Your task to perform on an android device: Go to settings Image 0: 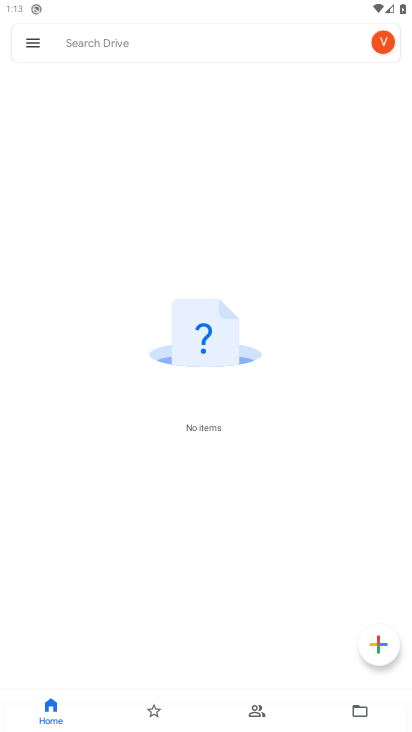
Step 0: press home button
Your task to perform on an android device: Go to settings Image 1: 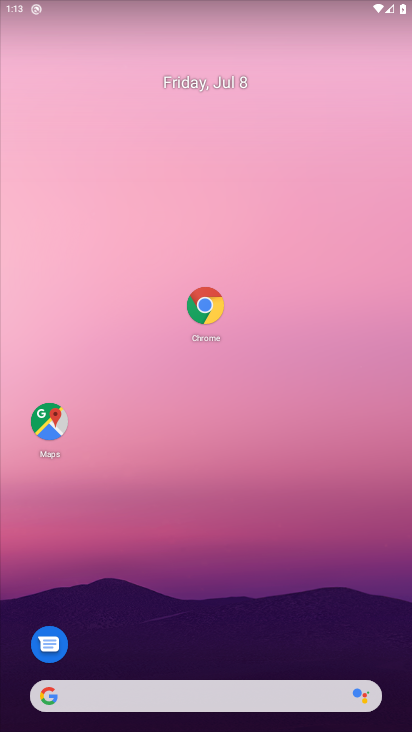
Step 1: drag from (171, 677) to (178, 327)
Your task to perform on an android device: Go to settings Image 2: 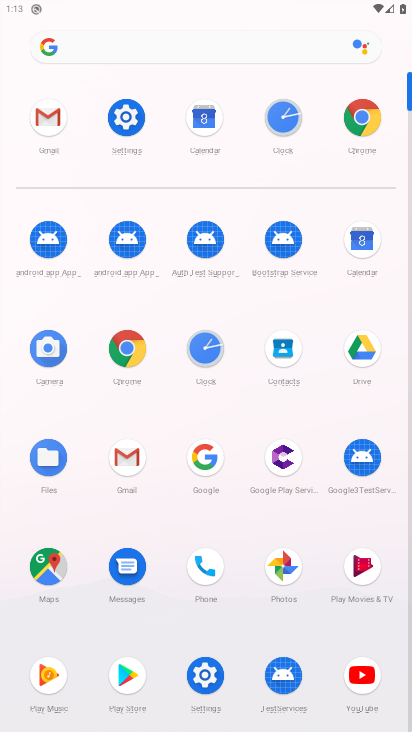
Step 2: click (203, 679)
Your task to perform on an android device: Go to settings Image 3: 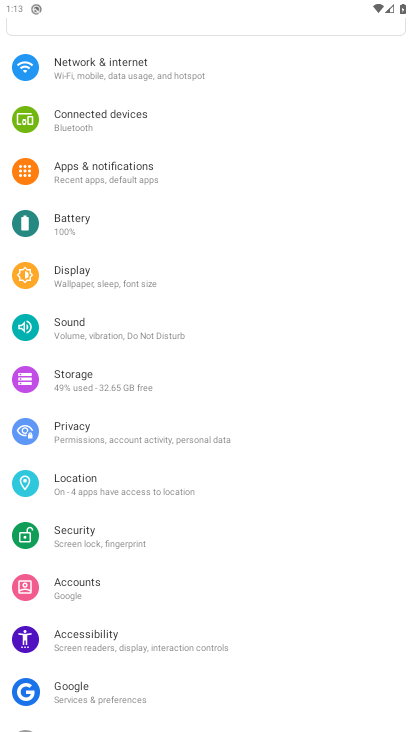
Step 3: task complete